Your task to perform on an android device: Show me popular videos on Youtube Image 0: 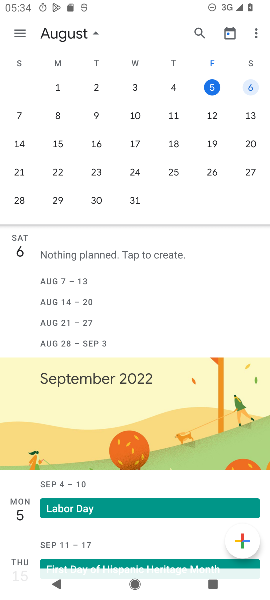
Step 0: press home button
Your task to perform on an android device: Show me popular videos on Youtube Image 1: 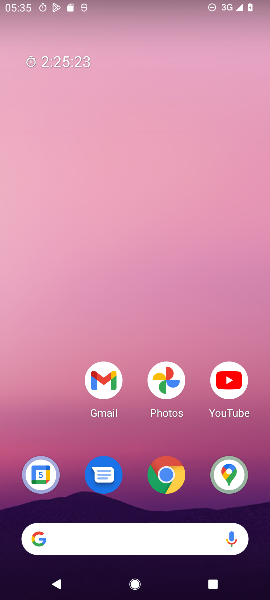
Step 1: drag from (61, 441) to (52, 237)
Your task to perform on an android device: Show me popular videos on Youtube Image 2: 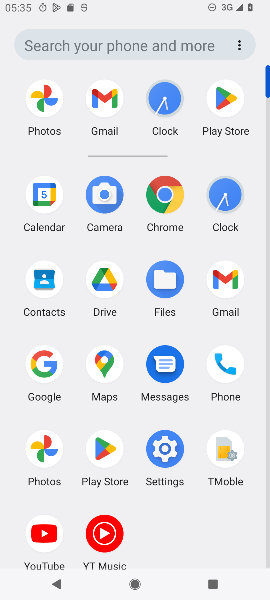
Step 2: click (39, 536)
Your task to perform on an android device: Show me popular videos on Youtube Image 3: 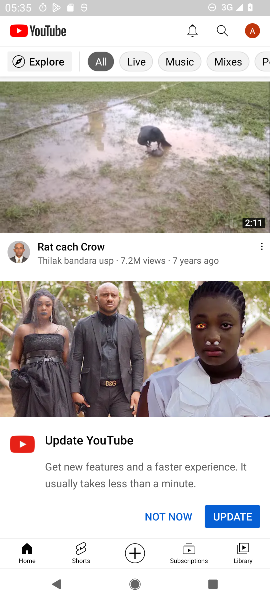
Step 3: drag from (139, 455) to (132, 316)
Your task to perform on an android device: Show me popular videos on Youtube Image 4: 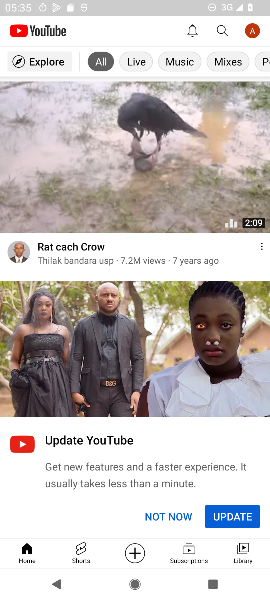
Step 4: click (157, 514)
Your task to perform on an android device: Show me popular videos on Youtube Image 5: 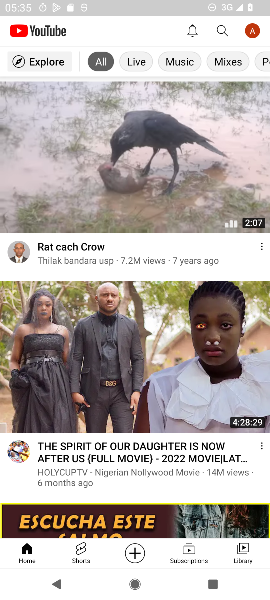
Step 5: task complete